Your task to perform on an android device: turn on bluetooth scan Image 0: 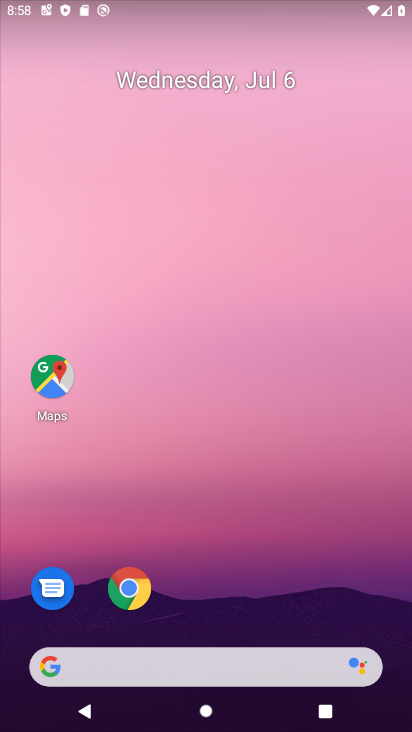
Step 0: click (126, 592)
Your task to perform on an android device: turn on bluetooth scan Image 1: 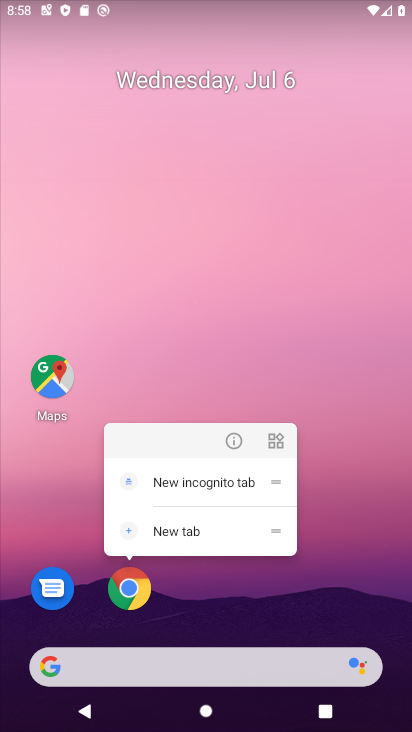
Step 1: drag from (187, 661) to (318, 104)
Your task to perform on an android device: turn on bluetooth scan Image 2: 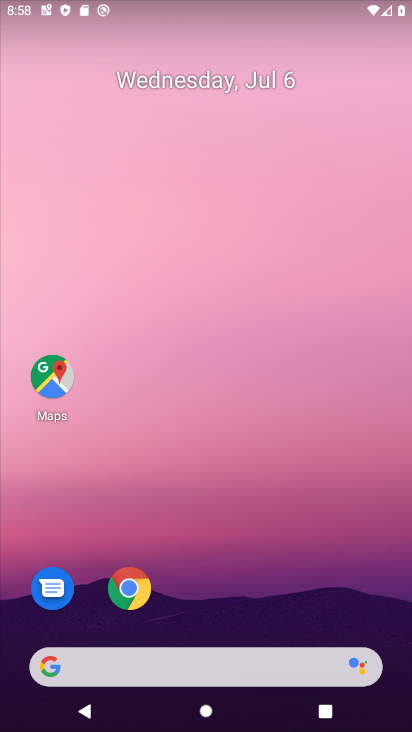
Step 2: drag from (208, 659) to (336, 23)
Your task to perform on an android device: turn on bluetooth scan Image 3: 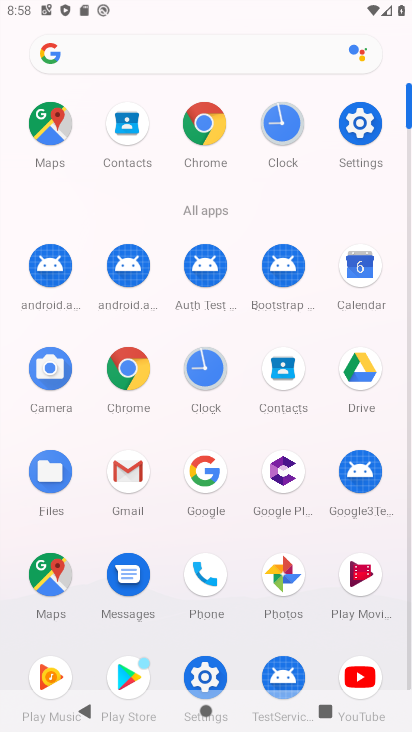
Step 3: click (362, 118)
Your task to perform on an android device: turn on bluetooth scan Image 4: 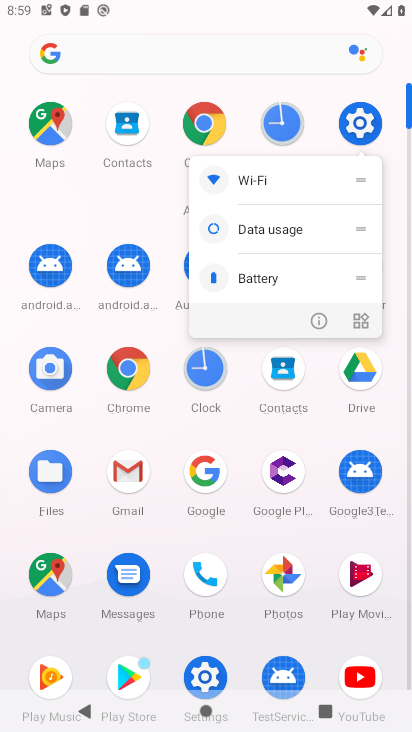
Step 4: click (363, 128)
Your task to perform on an android device: turn on bluetooth scan Image 5: 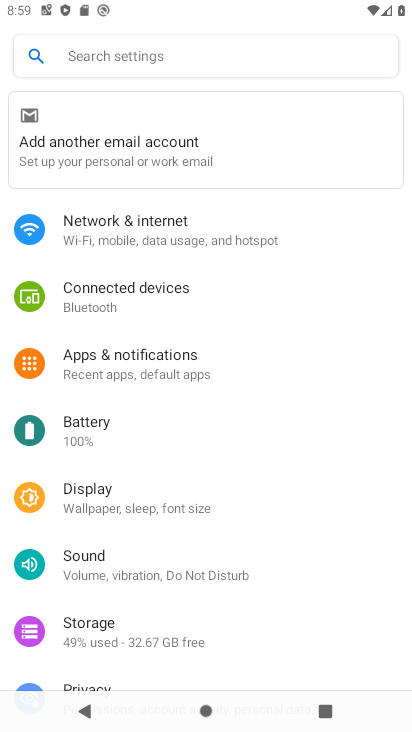
Step 5: drag from (110, 599) to (301, 52)
Your task to perform on an android device: turn on bluetooth scan Image 6: 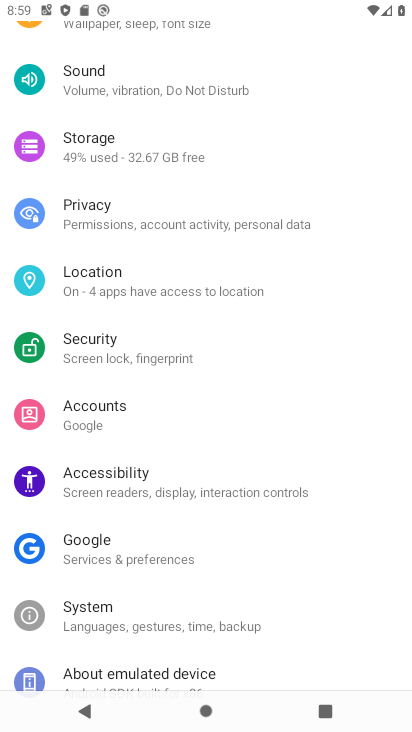
Step 6: click (100, 282)
Your task to perform on an android device: turn on bluetooth scan Image 7: 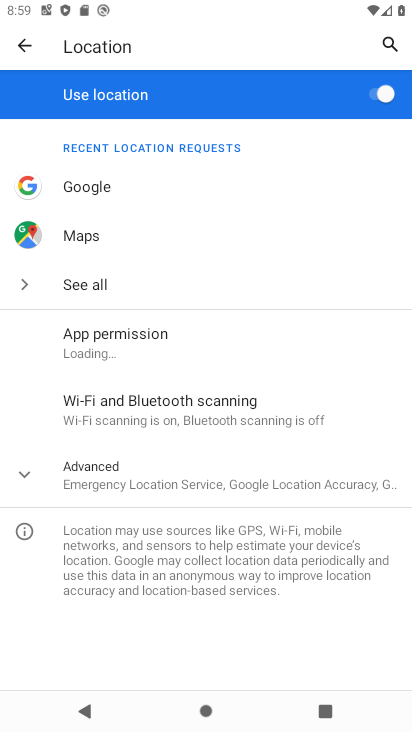
Step 7: click (145, 404)
Your task to perform on an android device: turn on bluetooth scan Image 8: 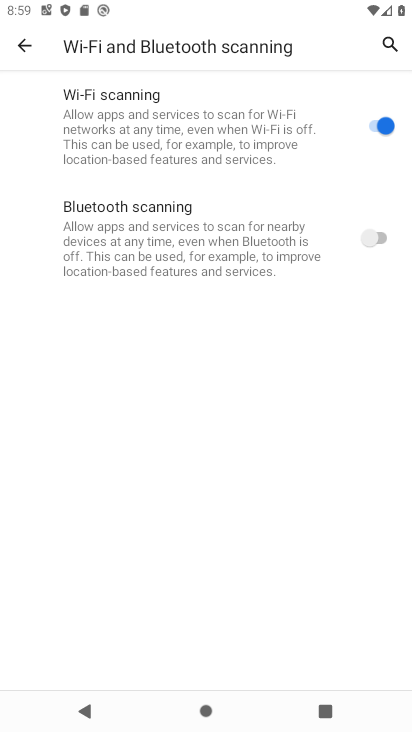
Step 8: click (377, 235)
Your task to perform on an android device: turn on bluetooth scan Image 9: 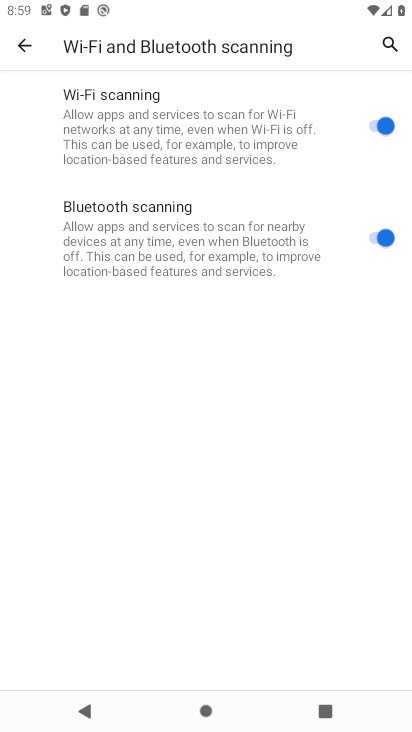
Step 9: task complete